Your task to perform on an android device: read, delete, or share a saved page in the chrome app Image 0: 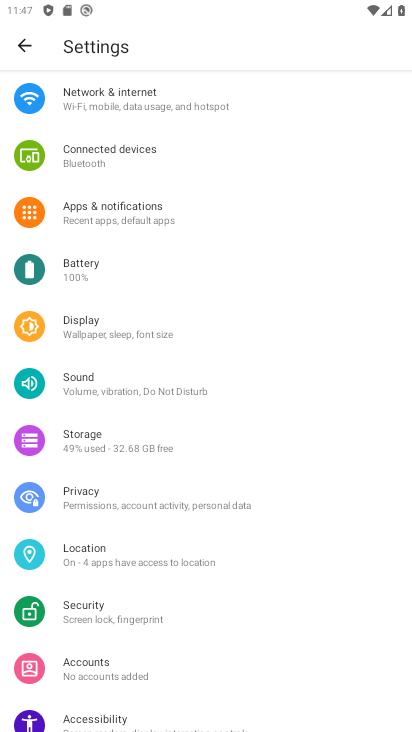
Step 0: press home button
Your task to perform on an android device: read, delete, or share a saved page in the chrome app Image 1: 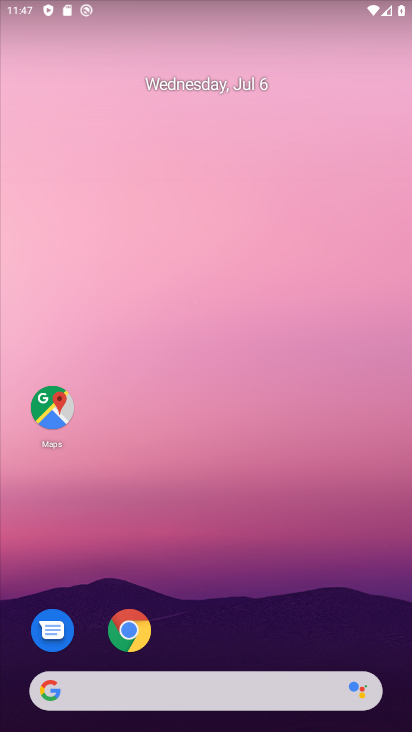
Step 1: click (137, 616)
Your task to perform on an android device: read, delete, or share a saved page in the chrome app Image 2: 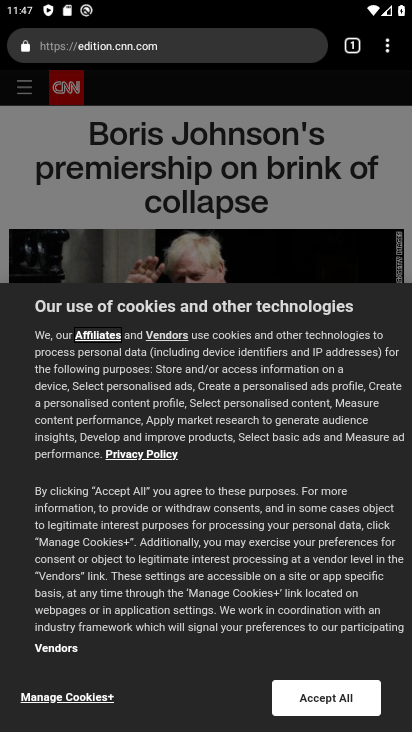
Step 2: click (385, 42)
Your task to perform on an android device: read, delete, or share a saved page in the chrome app Image 3: 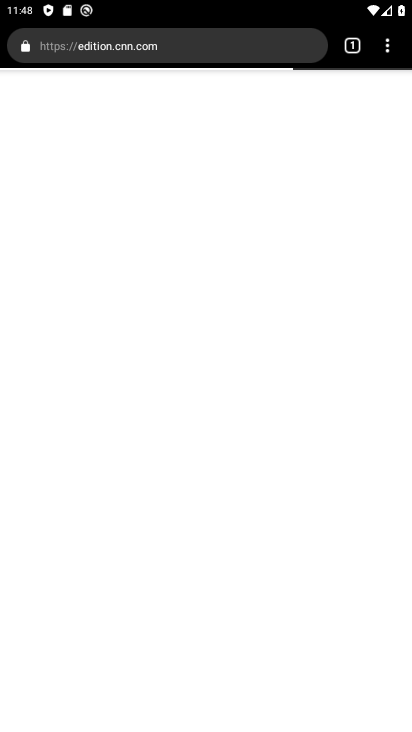
Step 3: click (389, 50)
Your task to perform on an android device: read, delete, or share a saved page in the chrome app Image 4: 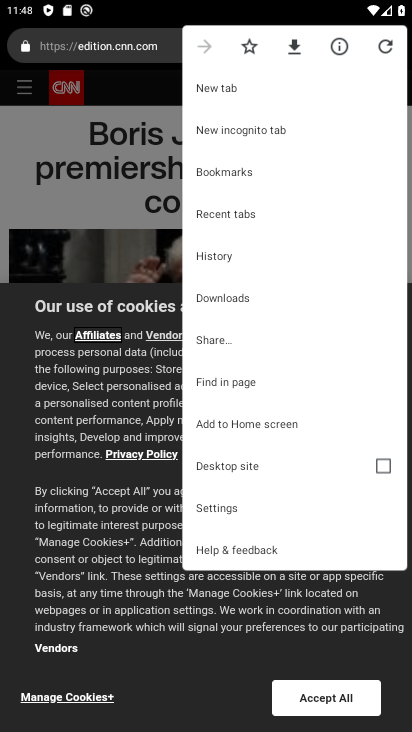
Step 4: task complete